Your task to perform on an android device: turn off notifications settings in the gmail app Image 0: 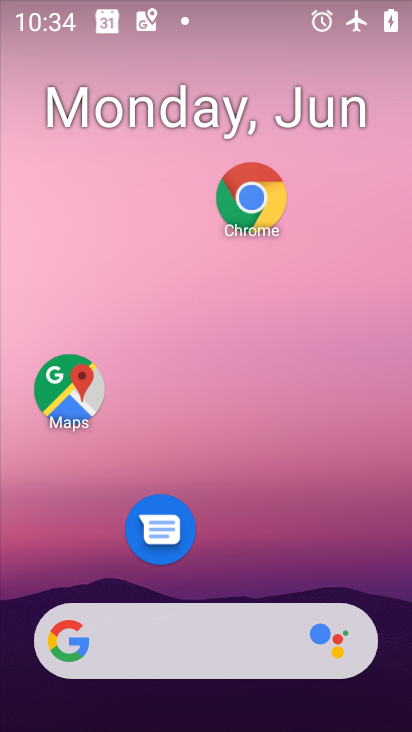
Step 0: drag from (210, 557) to (210, 136)
Your task to perform on an android device: turn off notifications settings in the gmail app Image 1: 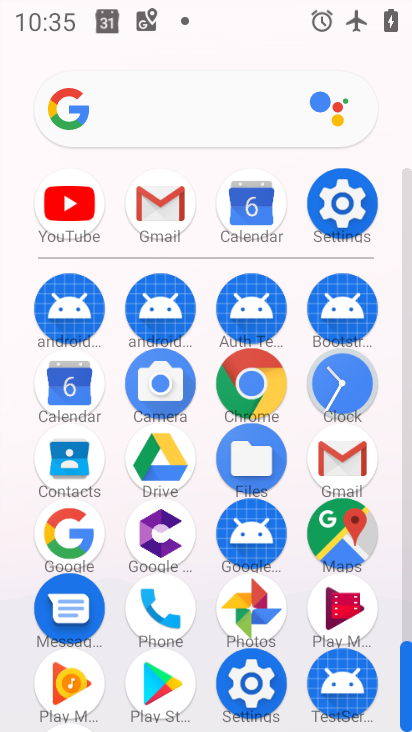
Step 1: click (168, 200)
Your task to perform on an android device: turn off notifications settings in the gmail app Image 2: 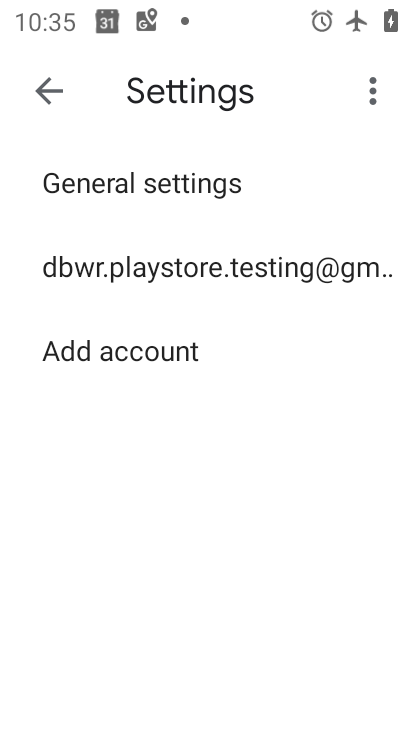
Step 2: click (117, 285)
Your task to perform on an android device: turn off notifications settings in the gmail app Image 3: 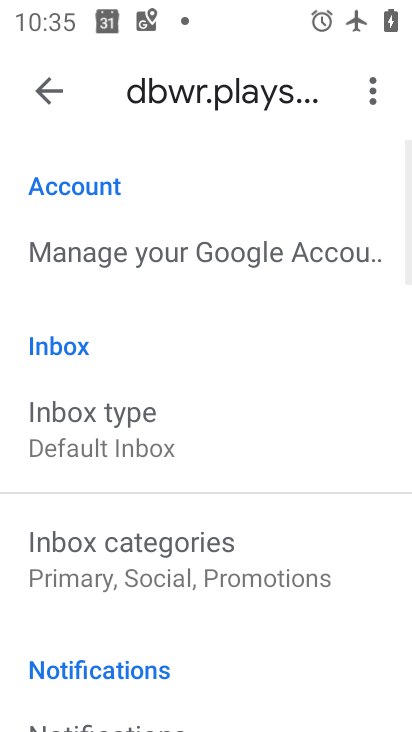
Step 3: drag from (235, 590) to (265, 271)
Your task to perform on an android device: turn off notifications settings in the gmail app Image 4: 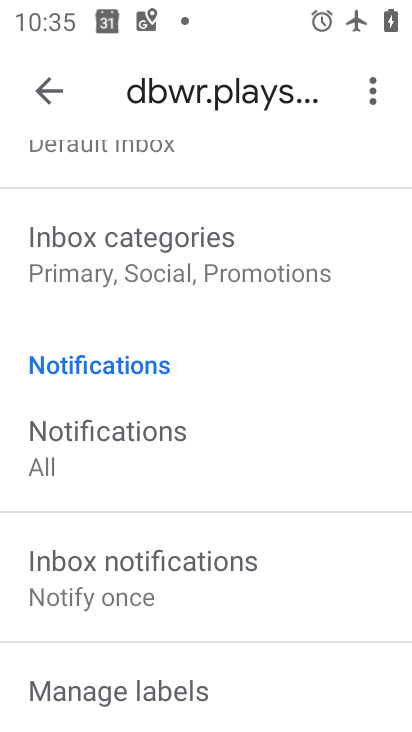
Step 4: drag from (264, 596) to (249, 333)
Your task to perform on an android device: turn off notifications settings in the gmail app Image 5: 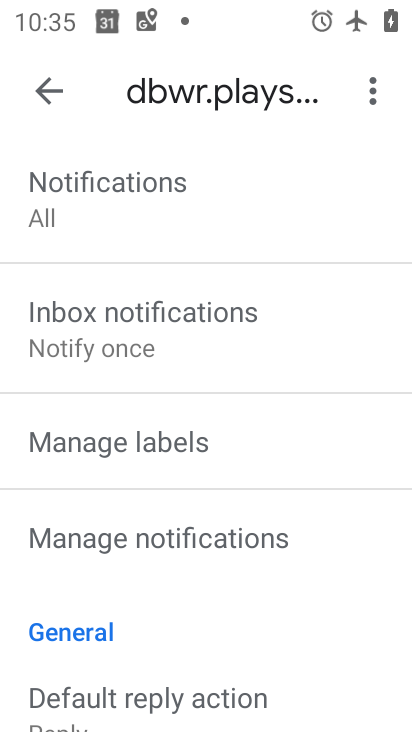
Step 5: click (225, 535)
Your task to perform on an android device: turn off notifications settings in the gmail app Image 6: 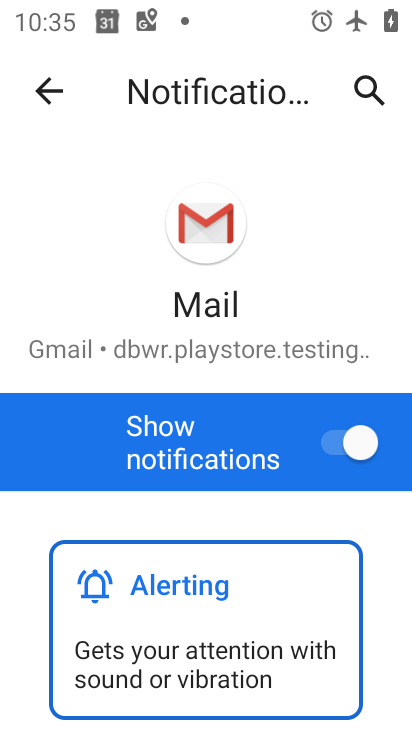
Step 6: drag from (301, 562) to (291, 385)
Your task to perform on an android device: turn off notifications settings in the gmail app Image 7: 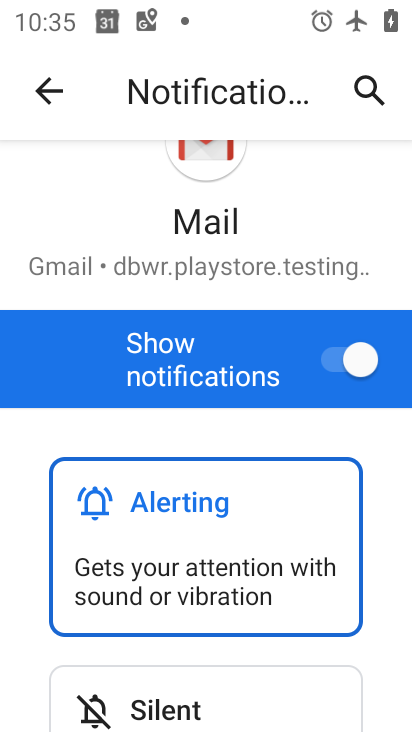
Step 7: click (319, 357)
Your task to perform on an android device: turn off notifications settings in the gmail app Image 8: 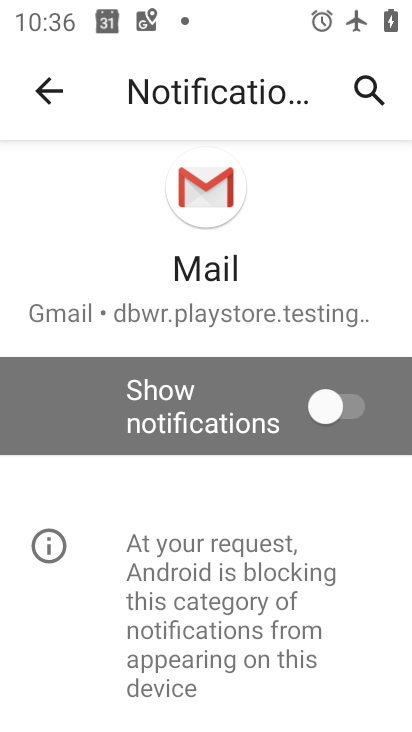
Step 8: task complete